Your task to perform on an android device: Open the calendar app, open the side menu, and click the "Day" option Image 0: 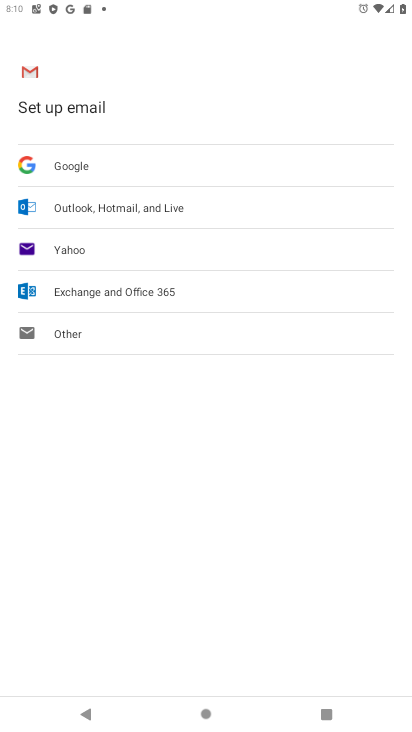
Step 0: press back button
Your task to perform on an android device: Open the calendar app, open the side menu, and click the "Day" option Image 1: 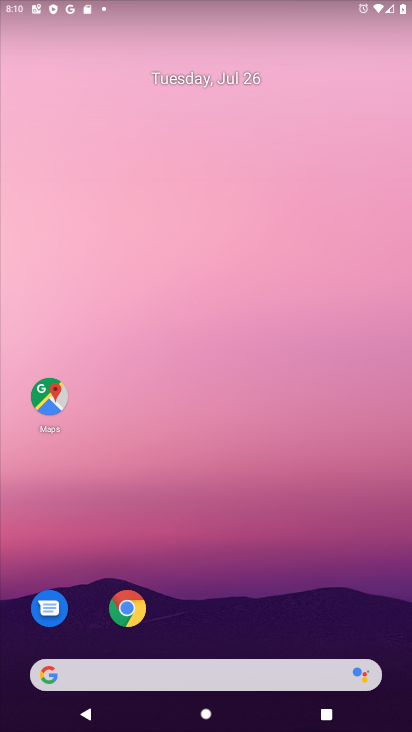
Step 1: drag from (255, 659) to (188, 219)
Your task to perform on an android device: Open the calendar app, open the side menu, and click the "Day" option Image 2: 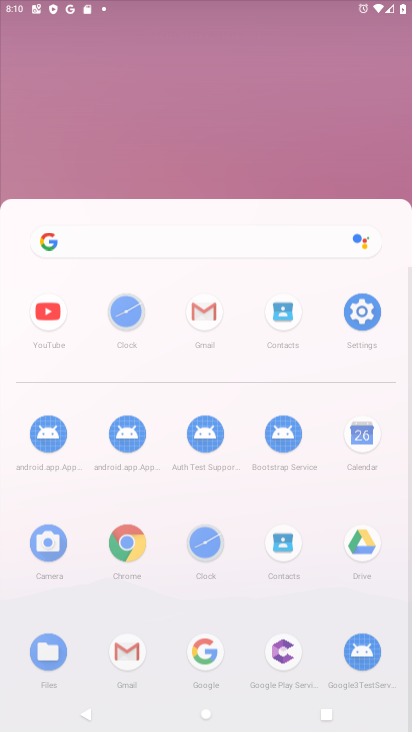
Step 2: drag from (266, 554) to (273, 111)
Your task to perform on an android device: Open the calendar app, open the side menu, and click the "Day" option Image 3: 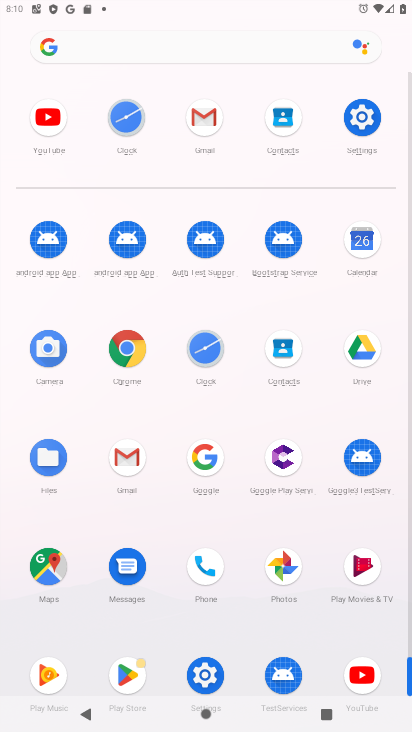
Step 3: click (362, 240)
Your task to perform on an android device: Open the calendar app, open the side menu, and click the "Day" option Image 4: 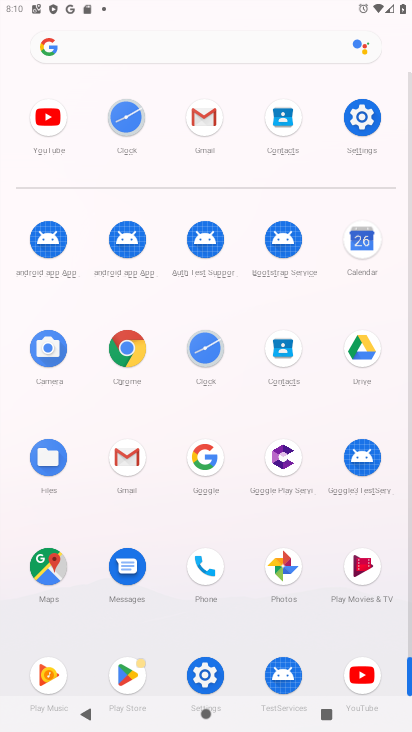
Step 4: click (362, 240)
Your task to perform on an android device: Open the calendar app, open the side menu, and click the "Day" option Image 5: 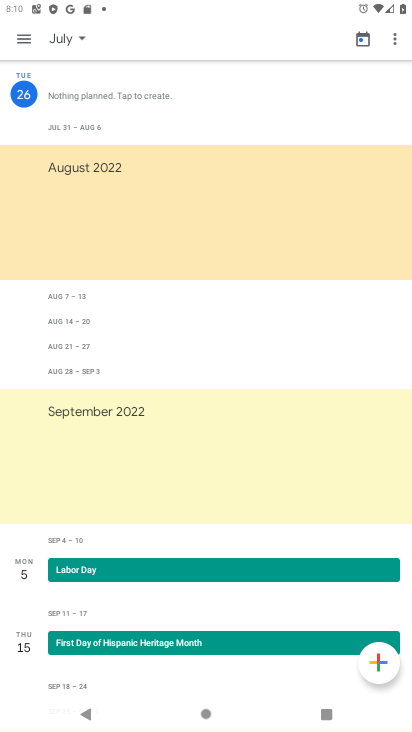
Step 5: click (22, 32)
Your task to perform on an android device: Open the calendar app, open the side menu, and click the "Day" option Image 6: 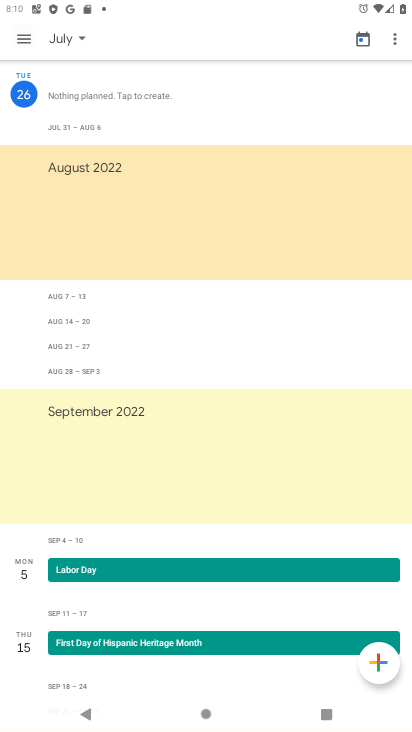
Step 6: click (22, 32)
Your task to perform on an android device: Open the calendar app, open the side menu, and click the "Day" option Image 7: 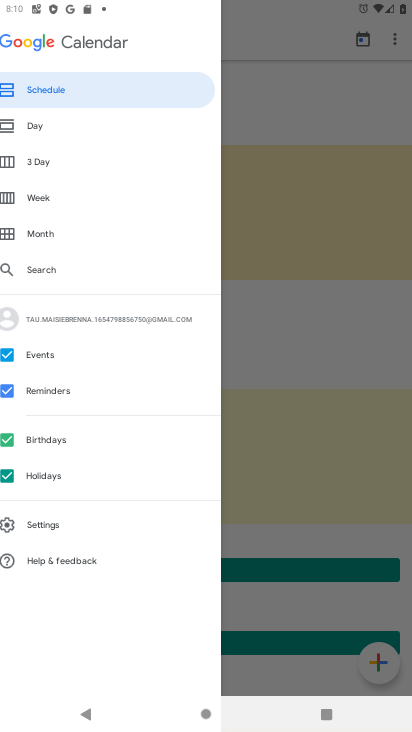
Step 7: click (21, 31)
Your task to perform on an android device: Open the calendar app, open the side menu, and click the "Day" option Image 8: 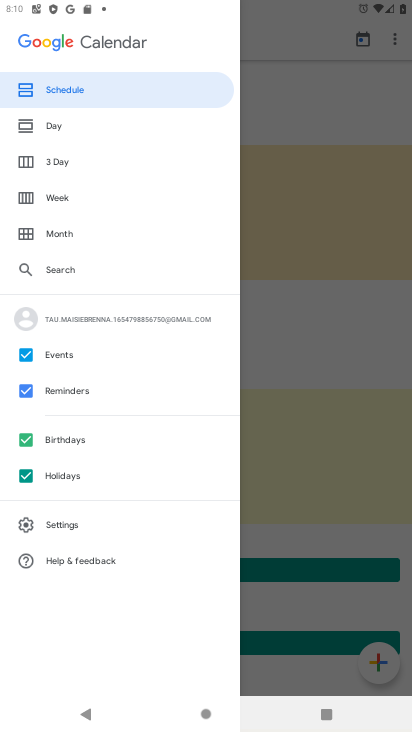
Step 8: click (59, 123)
Your task to perform on an android device: Open the calendar app, open the side menu, and click the "Day" option Image 9: 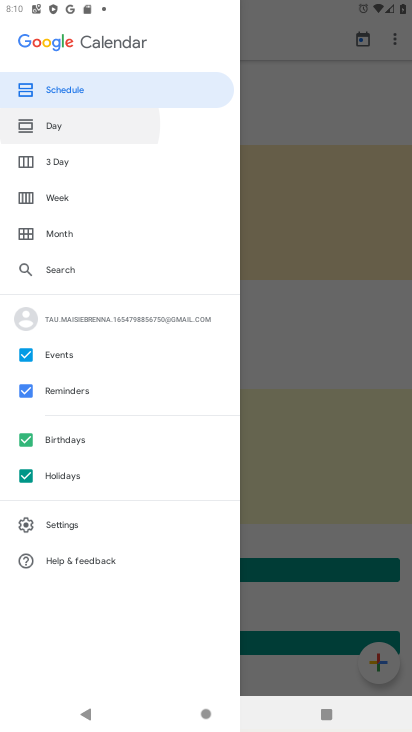
Step 9: click (58, 121)
Your task to perform on an android device: Open the calendar app, open the side menu, and click the "Day" option Image 10: 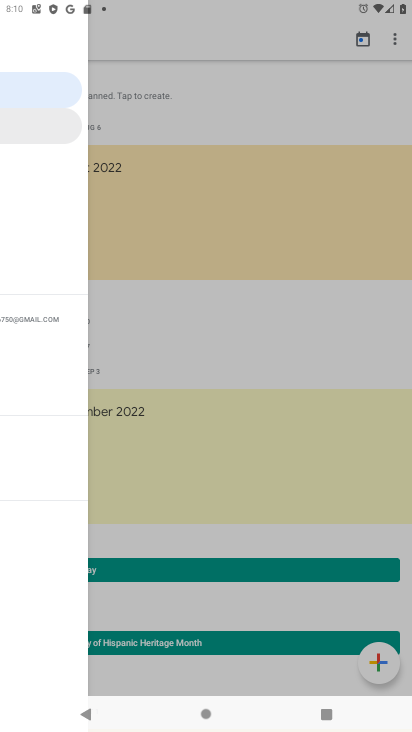
Step 10: click (58, 121)
Your task to perform on an android device: Open the calendar app, open the side menu, and click the "Day" option Image 11: 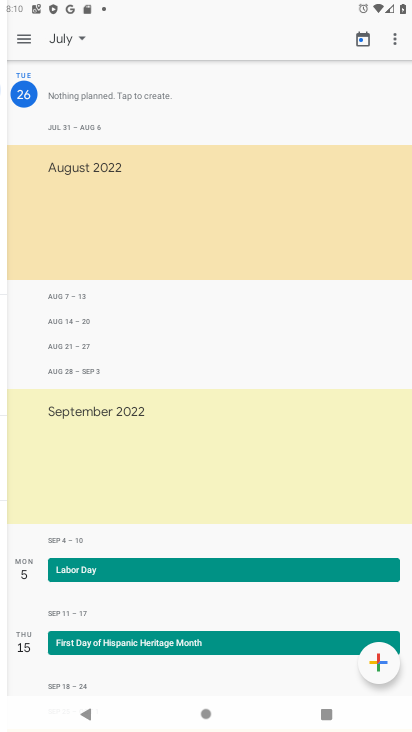
Step 11: click (58, 121)
Your task to perform on an android device: Open the calendar app, open the side menu, and click the "Day" option Image 12: 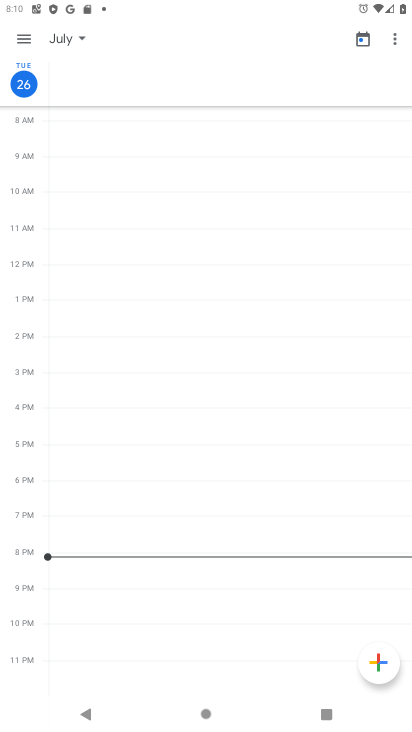
Step 12: task complete